Your task to perform on an android device: turn off airplane mode Image 0: 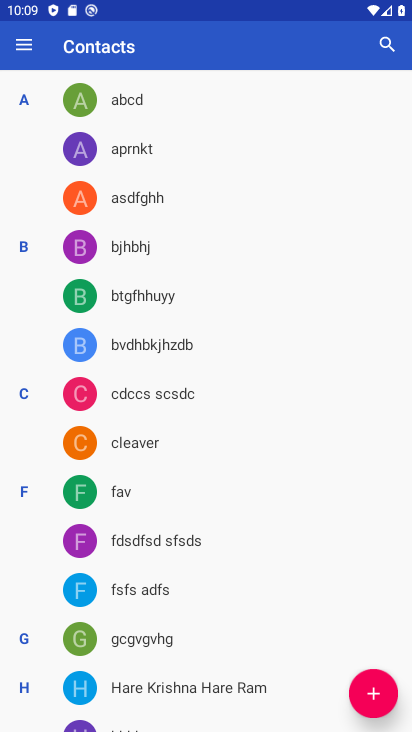
Step 0: press home button
Your task to perform on an android device: turn off airplane mode Image 1: 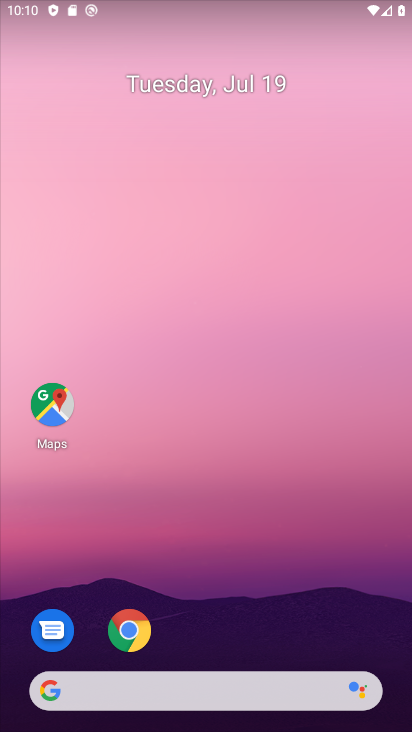
Step 1: drag from (195, 643) to (195, 318)
Your task to perform on an android device: turn off airplane mode Image 2: 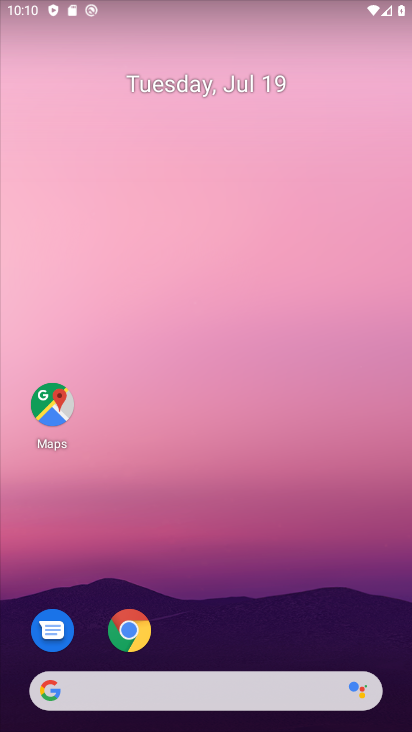
Step 2: drag from (200, 647) to (166, 179)
Your task to perform on an android device: turn off airplane mode Image 3: 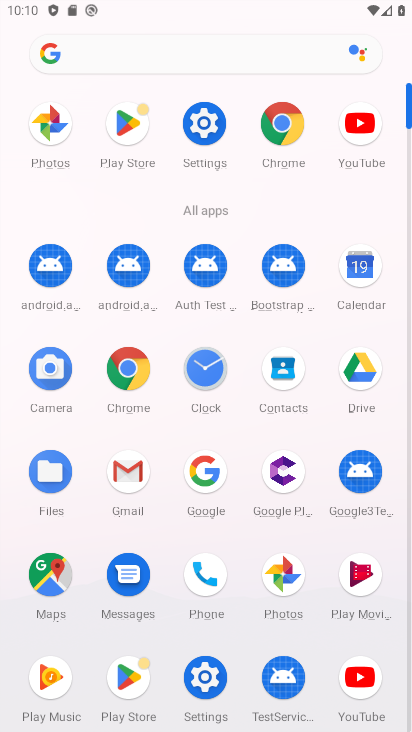
Step 3: click (204, 121)
Your task to perform on an android device: turn off airplane mode Image 4: 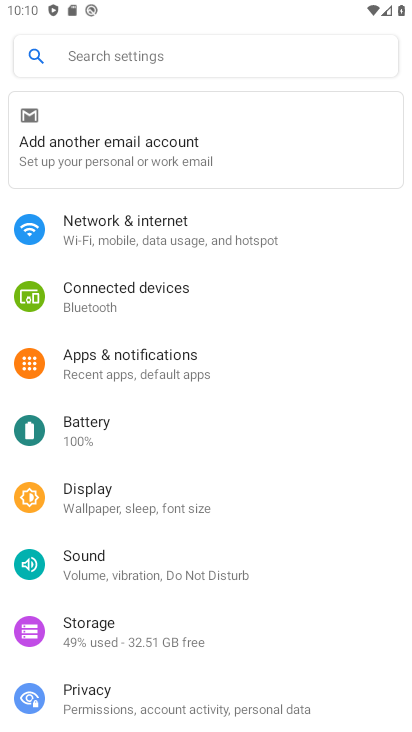
Step 4: click (99, 231)
Your task to perform on an android device: turn off airplane mode Image 5: 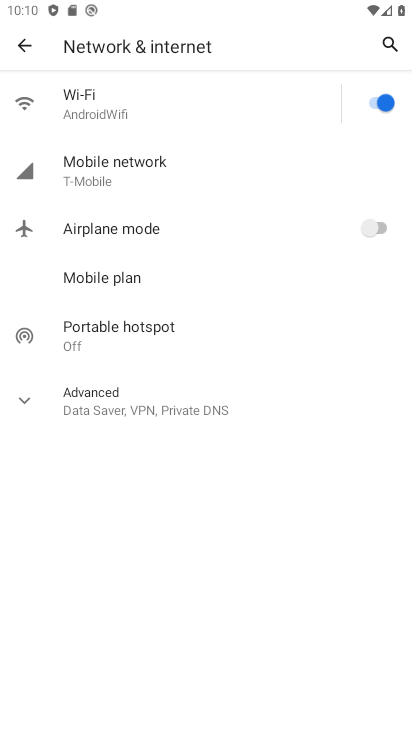
Step 5: click (129, 402)
Your task to perform on an android device: turn off airplane mode Image 6: 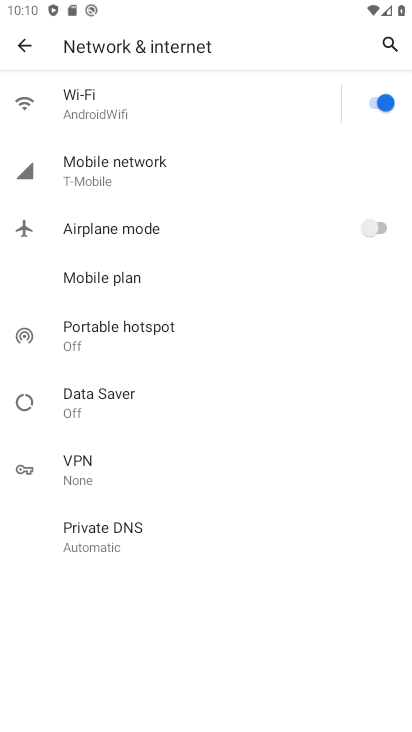
Step 6: task complete